Your task to perform on an android device: toggle notifications settings in the gmail app Image 0: 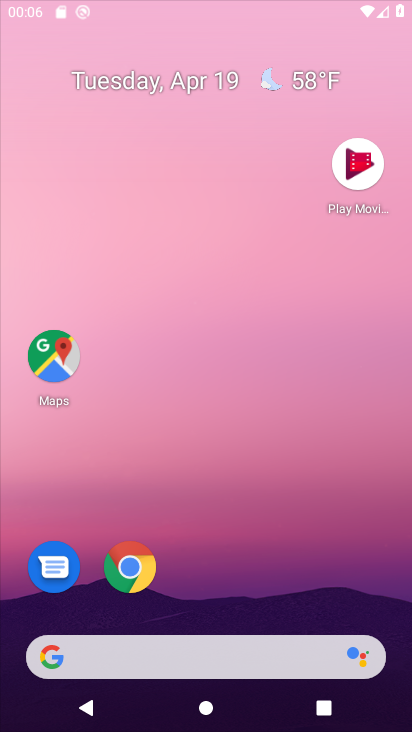
Step 0: drag from (221, 111) to (300, 116)
Your task to perform on an android device: toggle notifications settings in the gmail app Image 1: 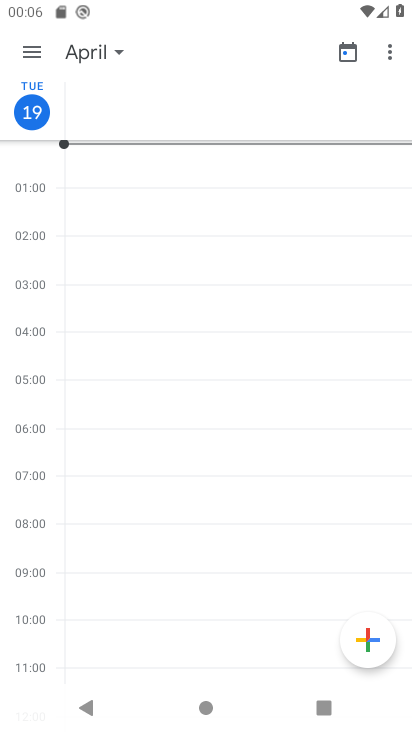
Step 1: drag from (176, 429) to (219, 151)
Your task to perform on an android device: toggle notifications settings in the gmail app Image 2: 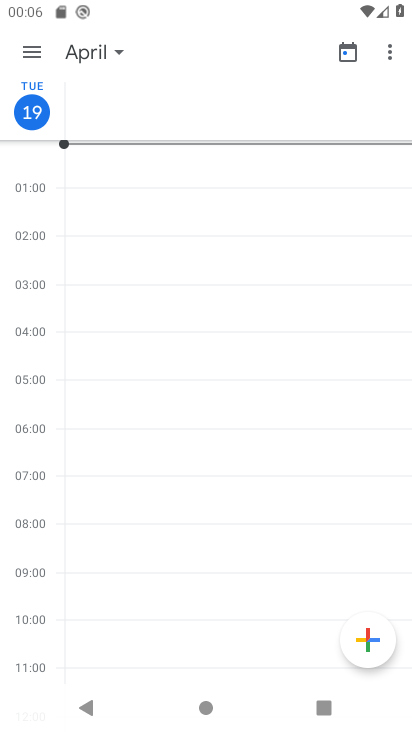
Step 2: drag from (150, 200) to (215, 679)
Your task to perform on an android device: toggle notifications settings in the gmail app Image 3: 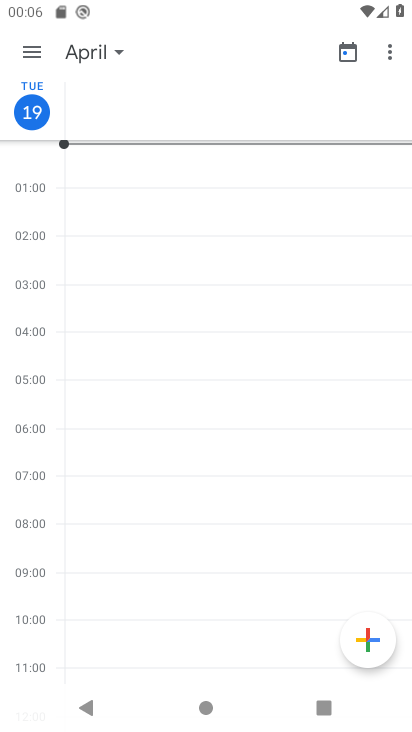
Step 3: press home button
Your task to perform on an android device: toggle notifications settings in the gmail app Image 4: 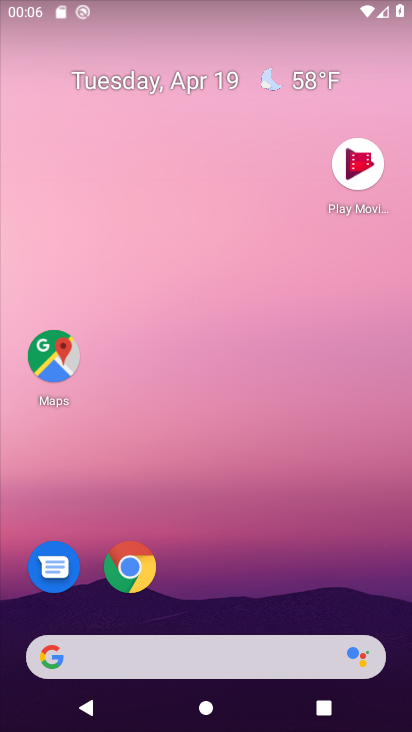
Step 4: drag from (201, 576) to (263, 162)
Your task to perform on an android device: toggle notifications settings in the gmail app Image 5: 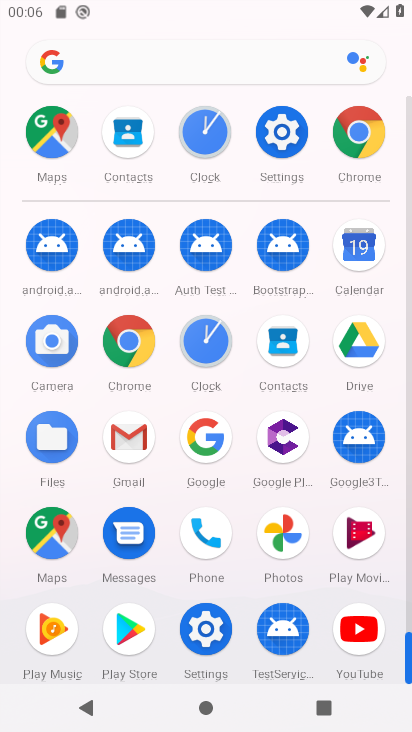
Step 5: click (123, 436)
Your task to perform on an android device: toggle notifications settings in the gmail app Image 6: 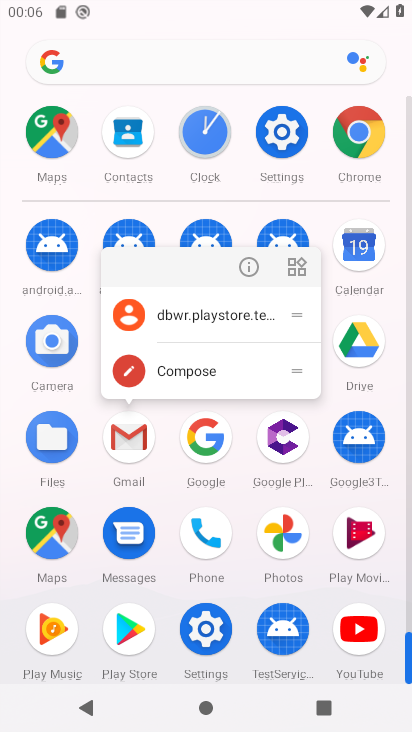
Step 6: click (130, 443)
Your task to perform on an android device: toggle notifications settings in the gmail app Image 7: 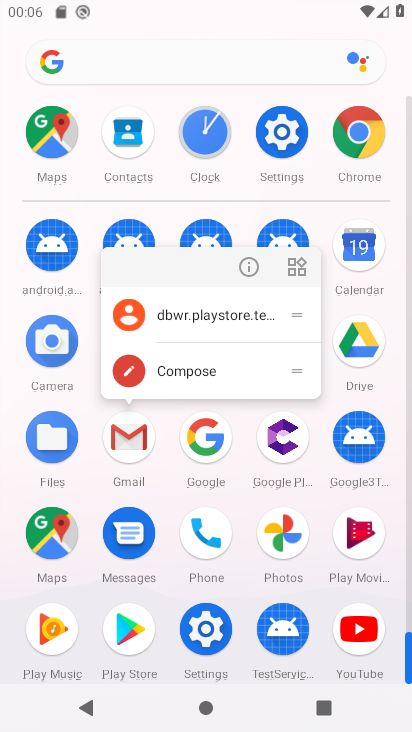
Step 7: click (252, 259)
Your task to perform on an android device: toggle notifications settings in the gmail app Image 8: 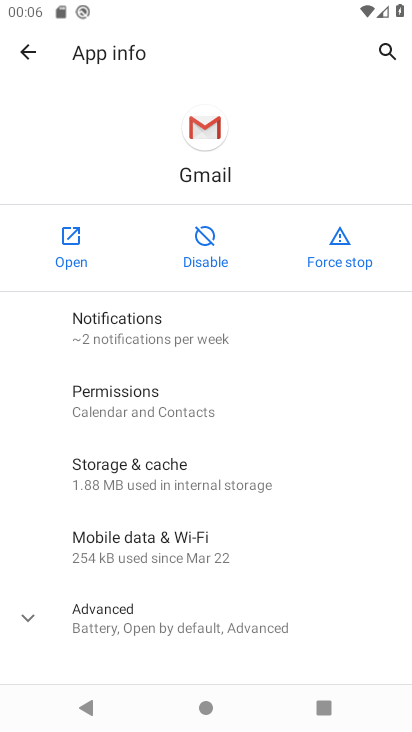
Step 8: click (68, 241)
Your task to perform on an android device: toggle notifications settings in the gmail app Image 9: 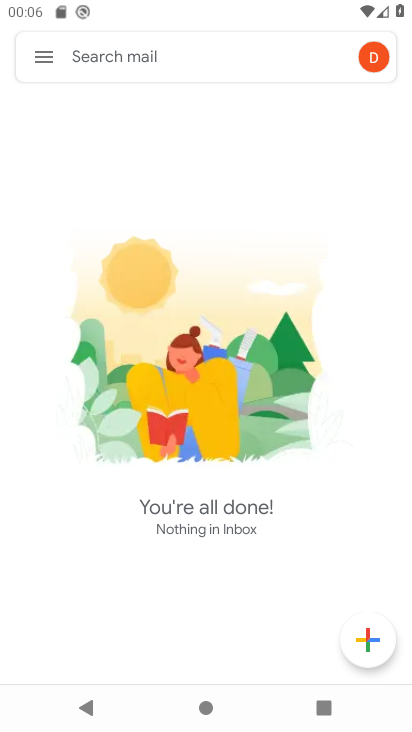
Step 9: drag from (268, 530) to (305, 228)
Your task to perform on an android device: toggle notifications settings in the gmail app Image 10: 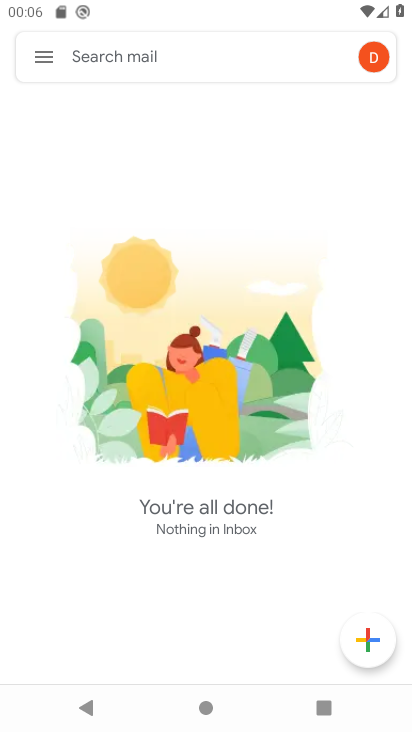
Step 10: click (32, 46)
Your task to perform on an android device: toggle notifications settings in the gmail app Image 11: 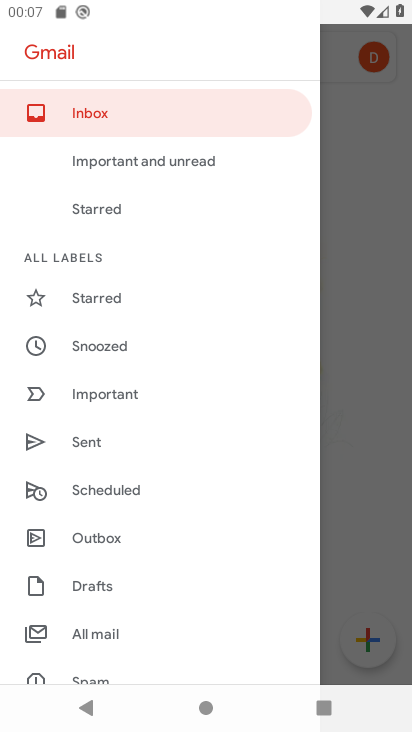
Step 11: drag from (158, 634) to (258, 63)
Your task to perform on an android device: toggle notifications settings in the gmail app Image 12: 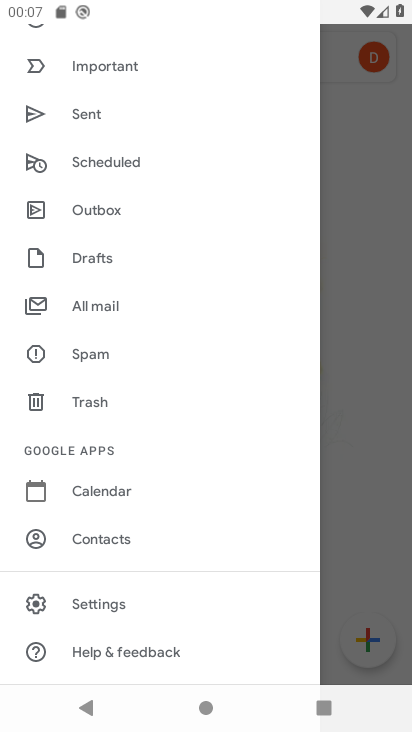
Step 12: click (133, 603)
Your task to perform on an android device: toggle notifications settings in the gmail app Image 13: 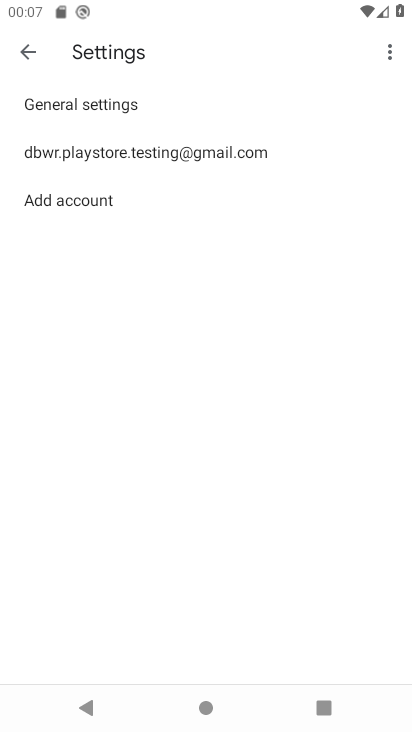
Step 13: click (200, 155)
Your task to perform on an android device: toggle notifications settings in the gmail app Image 14: 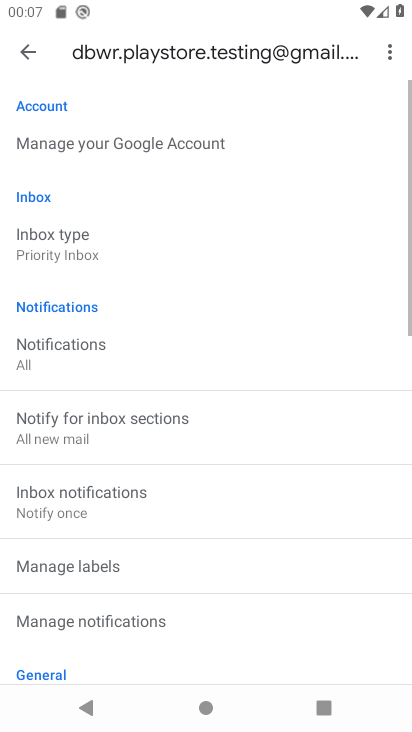
Step 14: drag from (185, 581) to (235, 145)
Your task to perform on an android device: toggle notifications settings in the gmail app Image 15: 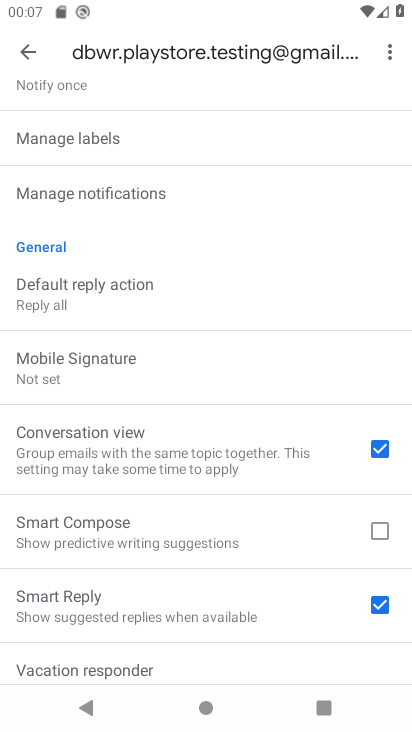
Step 15: click (134, 187)
Your task to perform on an android device: toggle notifications settings in the gmail app Image 16: 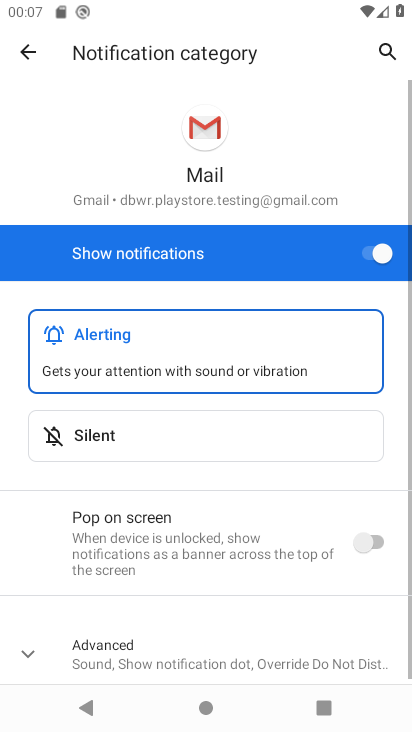
Step 16: drag from (286, 564) to (311, 209)
Your task to perform on an android device: toggle notifications settings in the gmail app Image 17: 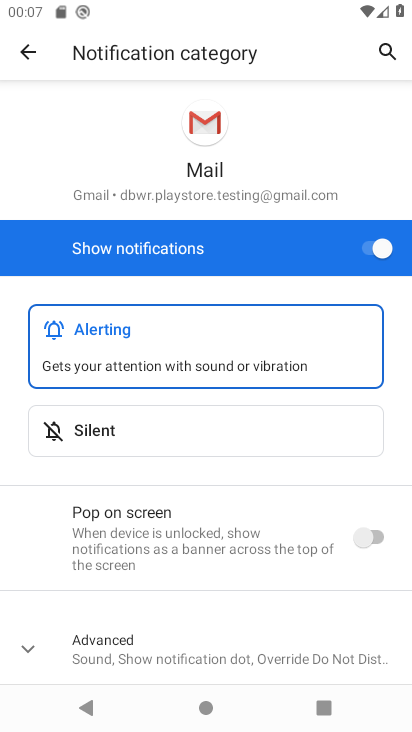
Step 17: drag from (201, 584) to (201, 340)
Your task to perform on an android device: toggle notifications settings in the gmail app Image 18: 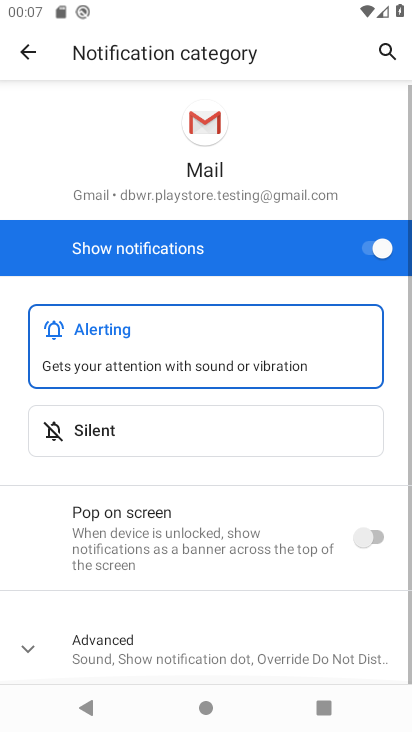
Step 18: drag from (255, 174) to (304, 427)
Your task to perform on an android device: toggle notifications settings in the gmail app Image 19: 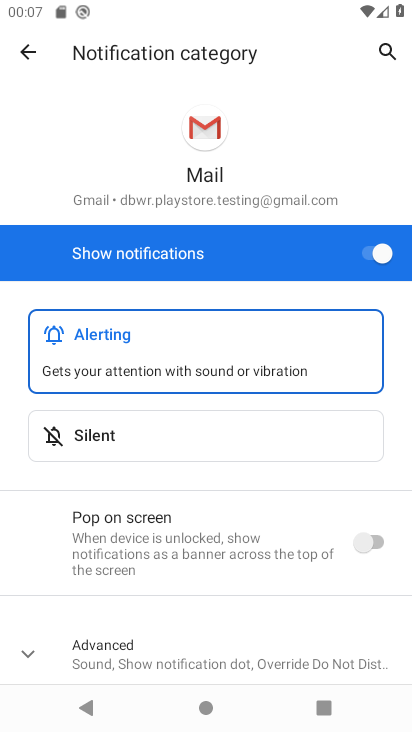
Step 19: click (366, 249)
Your task to perform on an android device: toggle notifications settings in the gmail app Image 20: 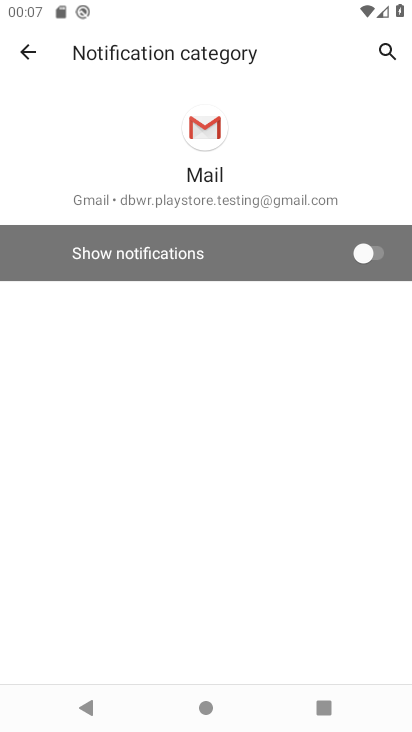
Step 20: task complete